Your task to perform on an android device: turn on data saver in the chrome app Image 0: 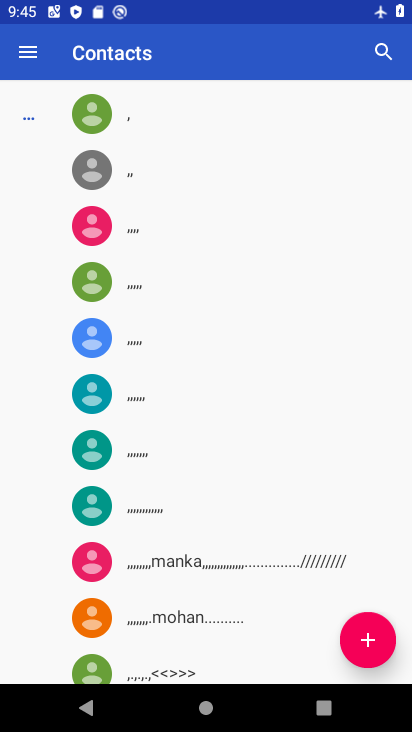
Step 0: press home button
Your task to perform on an android device: turn on data saver in the chrome app Image 1: 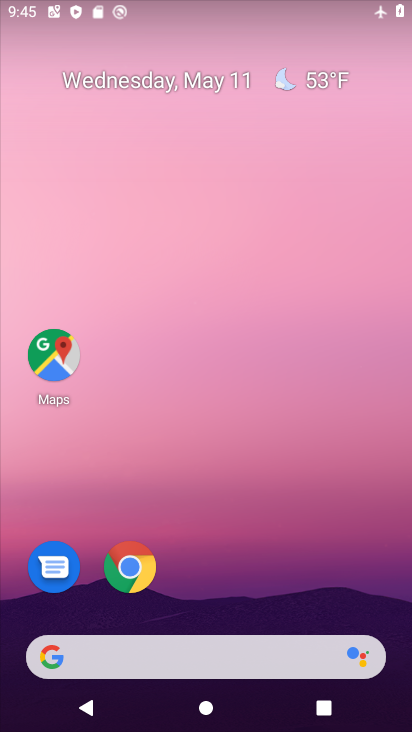
Step 1: click (125, 575)
Your task to perform on an android device: turn on data saver in the chrome app Image 2: 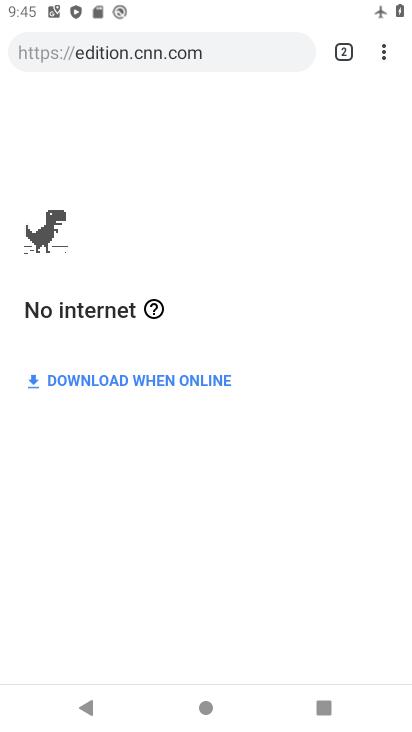
Step 2: click (383, 51)
Your task to perform on an android device: turn on data saver in the chrome app Image 3: 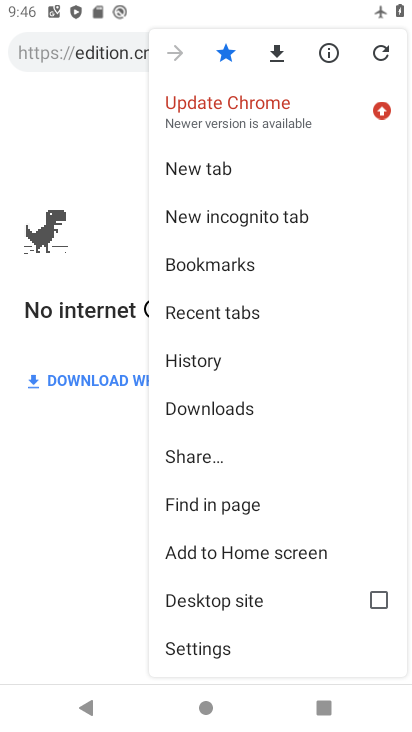
Step 3: click (244, 655)
Your task to perform on an android device: turn on data saver in the chrome app Image 4: 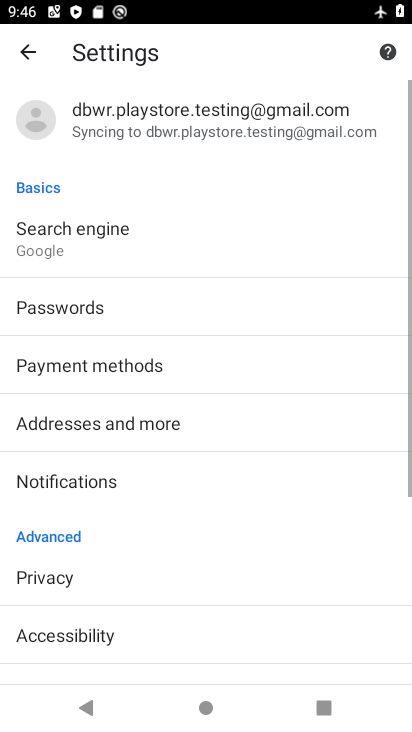
Step 4: drag from (253, 650) to (291, 116)
Your task to perform on an android device: turn on data saver in the chrome app Image 5: 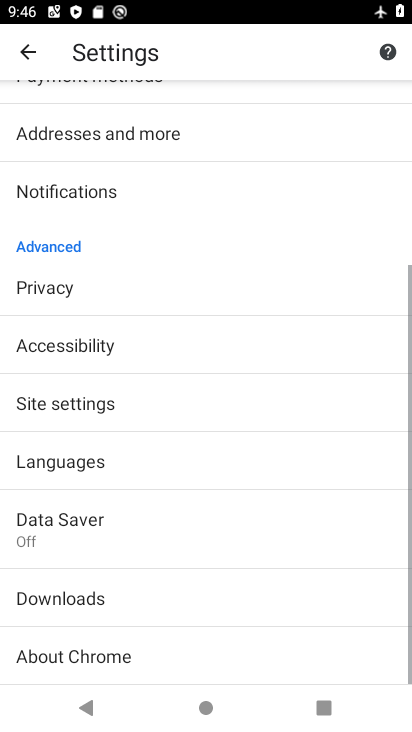
Step 5: click (62, 527)
Your task to perform on an android device: turn on data saver in the chrome app Image 6: 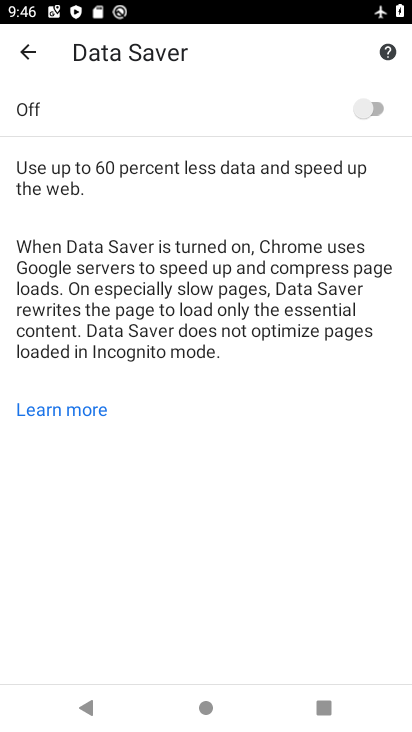
Step 6: click (378, 106)
Your task to perform on an android device: turn on data saver in the chrome app Image 7: 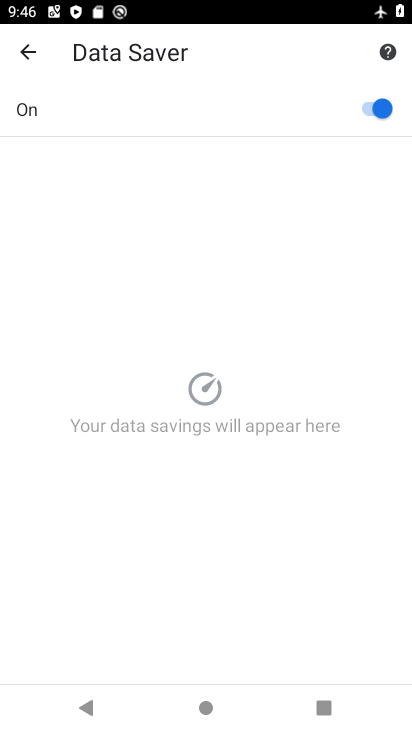
Step 7: task complete